Your task to perform on an android device: Open Wikipedia Image 0: 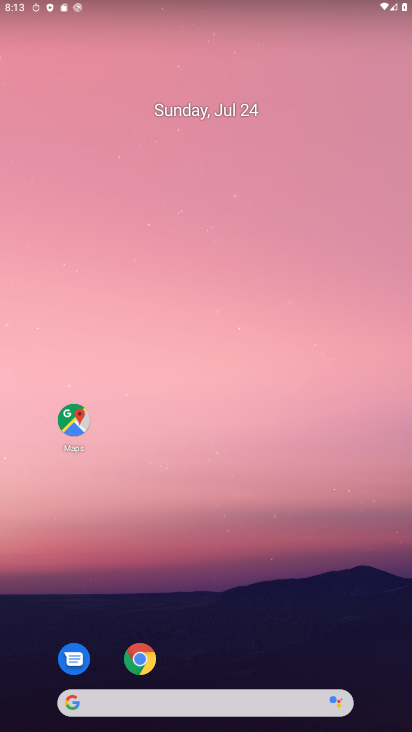
Step 0: drag from (295, 705) to (234, 121)
Your task to perform on an android device: Open Wikipedia Image 1: 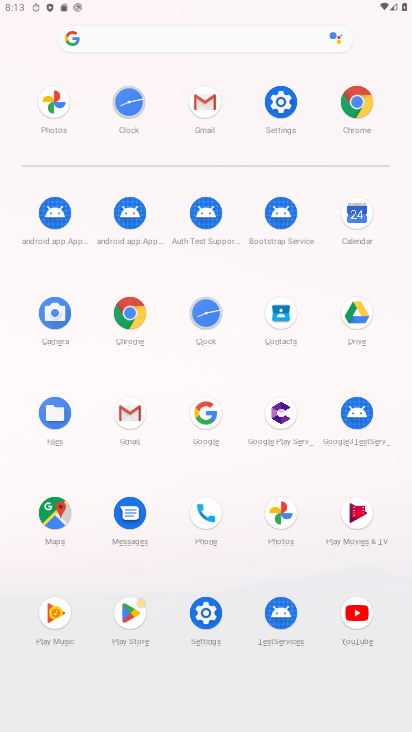
Step 1: click (358, 96)
Your task to perform on an android device: Open Wikipedia Image 2: 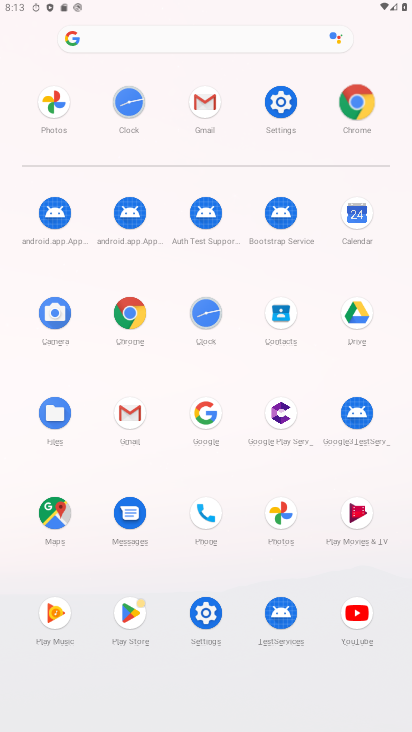
Step 2: click (357, 97)
Your task to perform on an android device: Open Wikipedia Image 3: 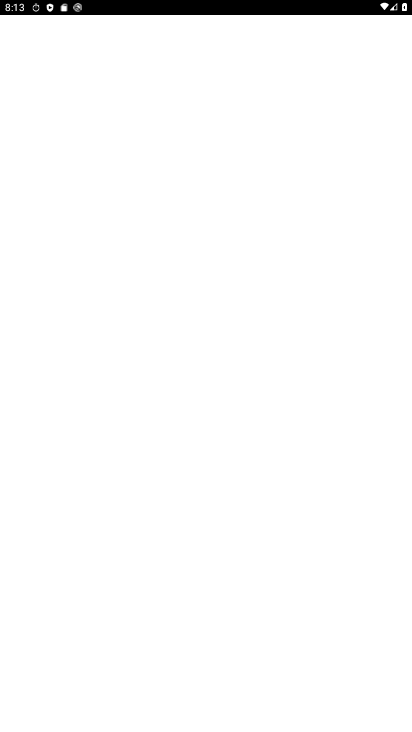
Step 3: click (356, 98)
Your task to perform on an android device: Open Wikipedia Image 4: 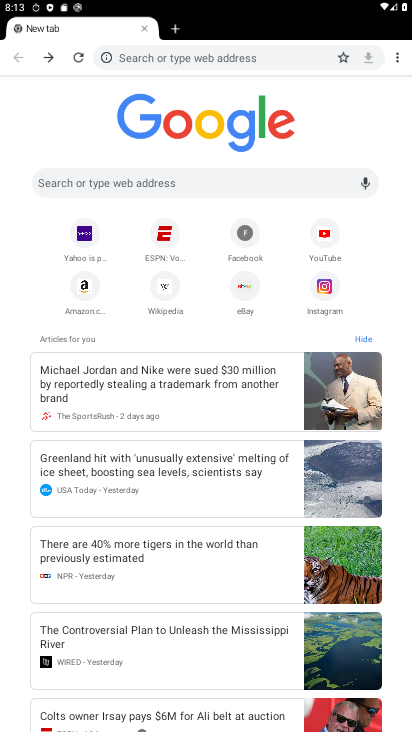
Step 4: click (404, 59)
Your task to perform on an android device: Open Wikipedia Image 5: 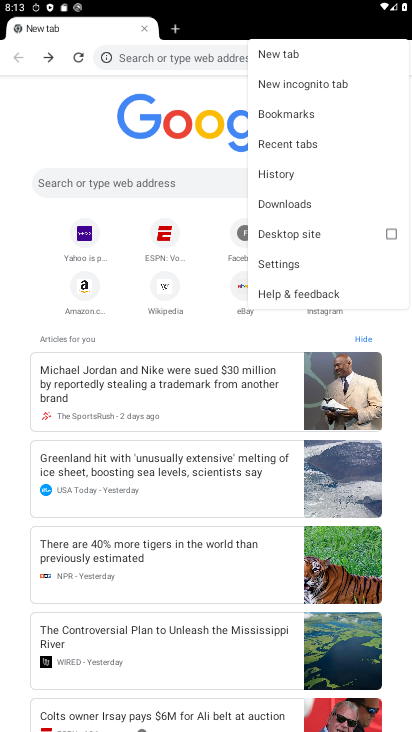
Step 5: click (63, 134)
Your task to perform on an android device: Open Wikipedia Image 6: 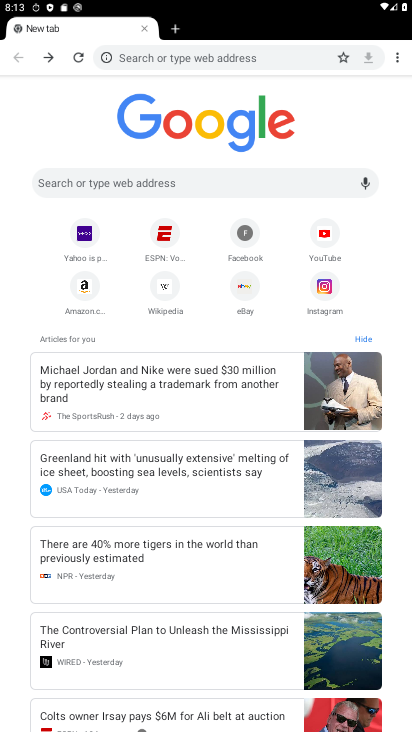
Step 6: click (164, 291)
Your task to perform on an android device: Open Wikipedia Image 7: 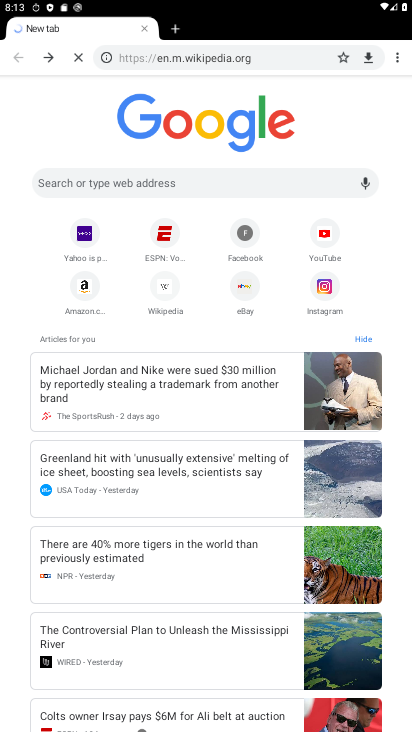
Step 7: click (164, 287)
Your task to perform on an android device: Open Wikipedia Image 8: 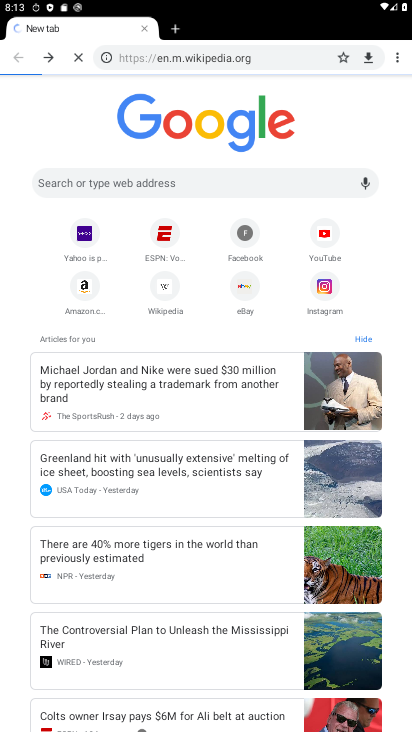
Step 8: click (164, 289)
Your task to perform on an android device: Open Wikipedia Image 9: 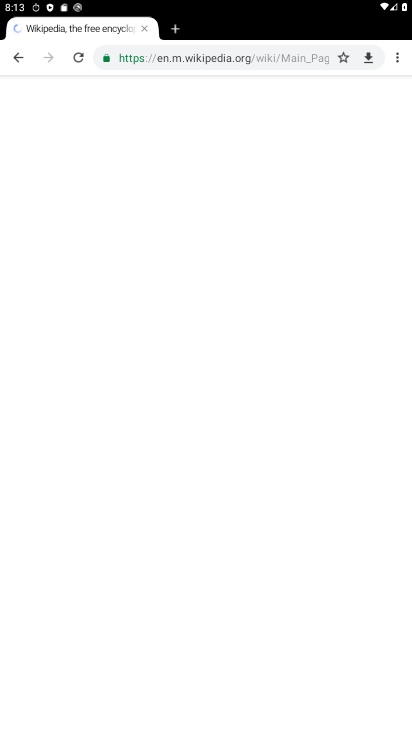
Step 9: task complete